Your task to perform on an android device: Open Google Chrome and click the shortcut for Amazon.com Image 0: 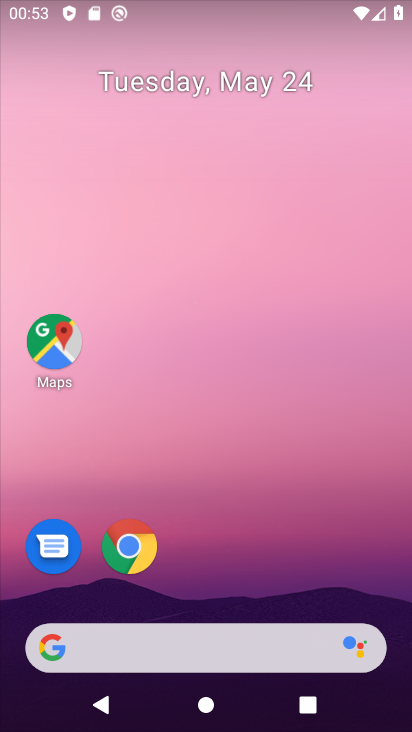
Step 0: drag from (285, 573) to (288, 91)
Your task to perform on an android device: Open Google Chrome and click the shortcut for Amazon.com Image 1: 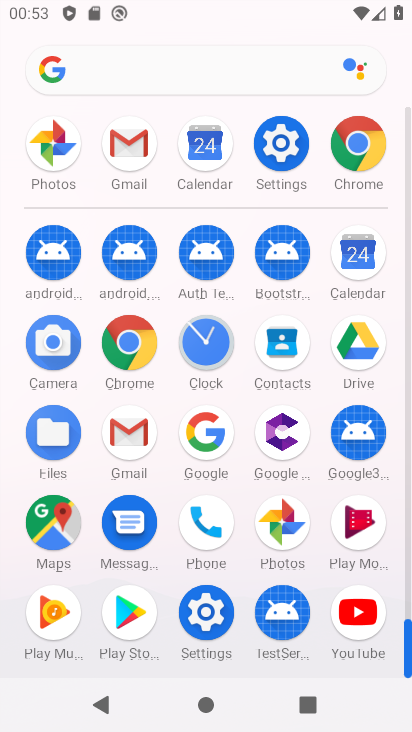
Step 1: click (139, 343)
Your task to perform on an android device: Open Google Chrome and click the shortcut for Amazon.com Image 2: 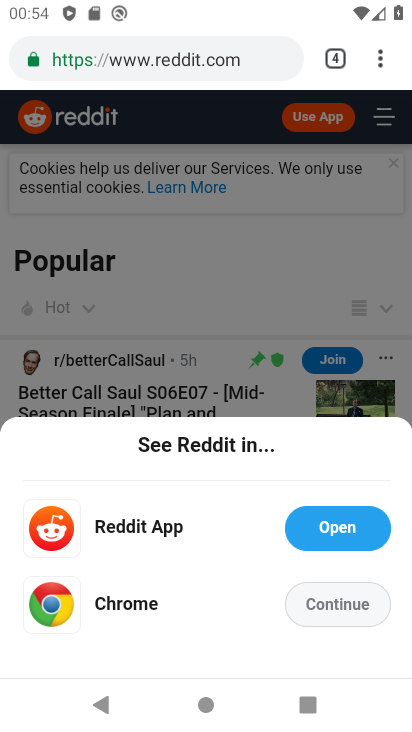
Step 2: click (384, 62)
Your task to perform on an android device: Open Google Chrome and click the shortcut for Amazon.com Image 3: 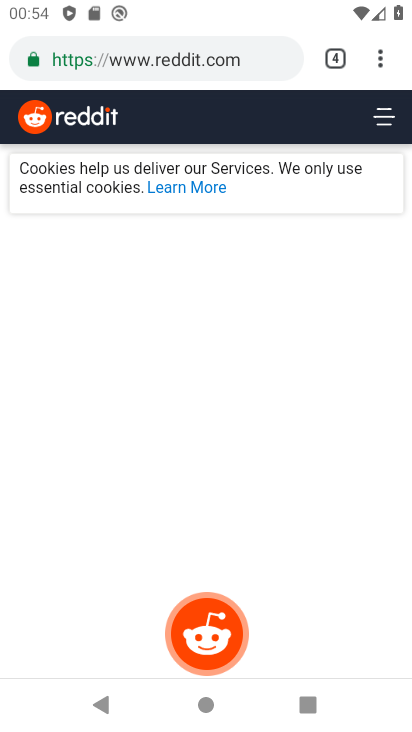
Step 3: drag from (380, 70) to (249, 105)
Your task to perform on an android device: Open Google Chrome and click the shortcut for Amazon.com Image 4: 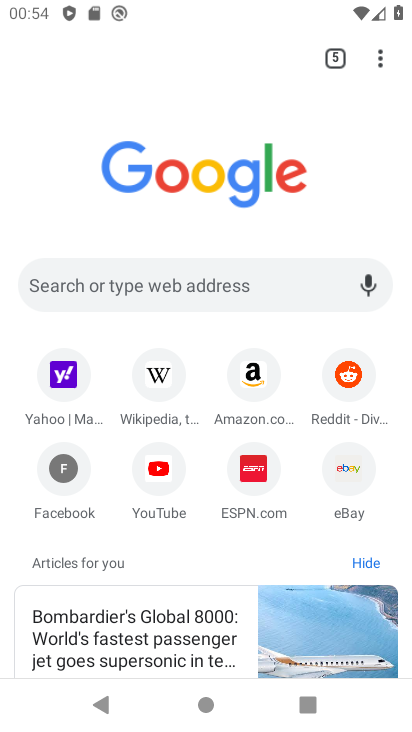
Step 4: click (257, 397)
Your task to perform on an android device: Open Google Chrome and click the shortcut for Amazon.com Image 5: 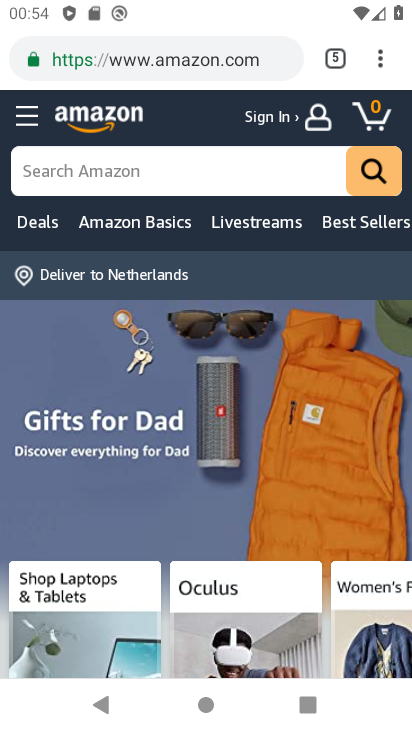
Step 5: click (382, 57)
Your task to perform on an android device: Open Google Chrome and click the shortcut for Amazon.com Image 6: 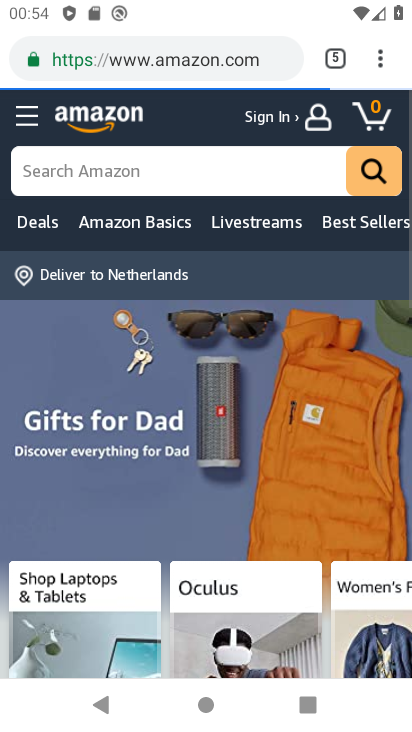
Step 6: drag from (374, 56) to (193, 585)
Your task to perform on an android device: Open Google Chrome and click the shortcut for Amazon.com Image 7: 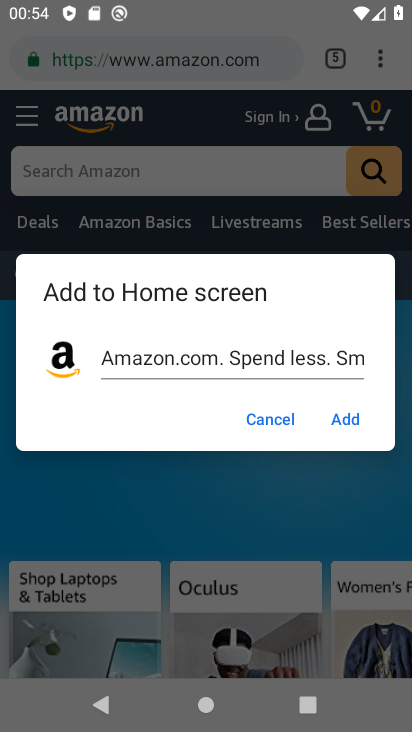
Step 7: click (339, 423)
Your task to perform on an android device: Open Google Chrome and click the shortcut for Amazon.com Image 8: 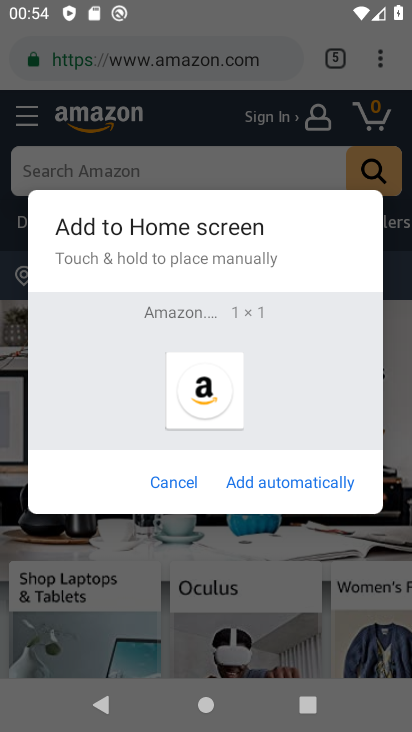
Step 8: task complete